Your task to perform on an android device: empty trash in google photos Image 0: 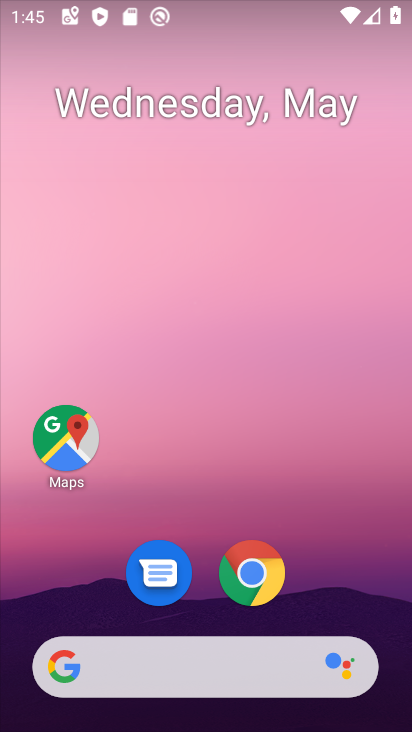
Step 0: drag from (308, 604) to (319, 2)
Your task to perform on an android device: empty trash in google photos Image 1: 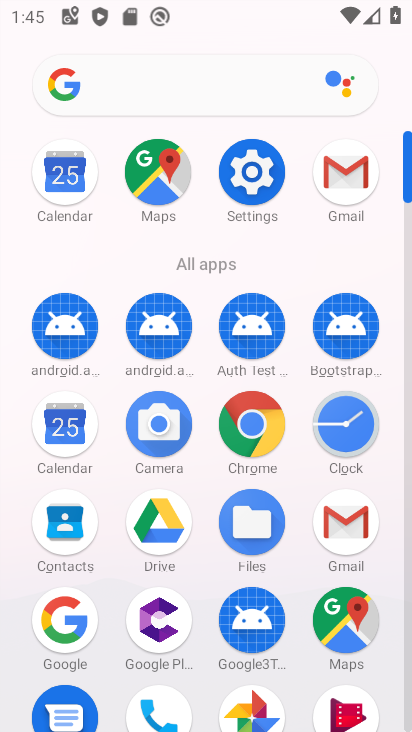
Step 1: drag from (207, 577) to (266, 202)
Your task to perform on an android device: empty trash in google photos Image 2: 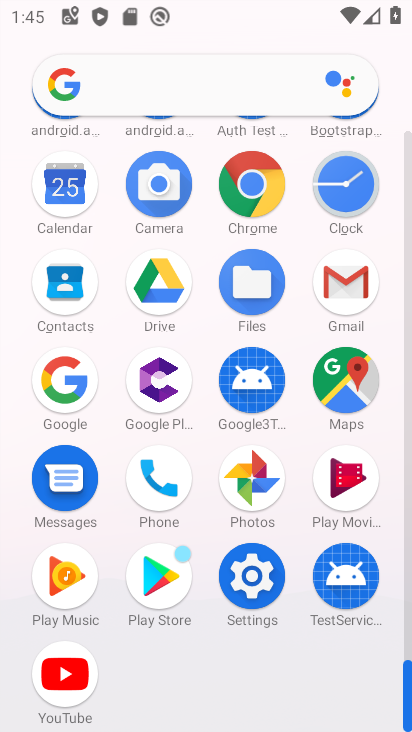
Step 2: click (252, 489)
Your task to perform on an android device: empty trash in google photos Image 3: 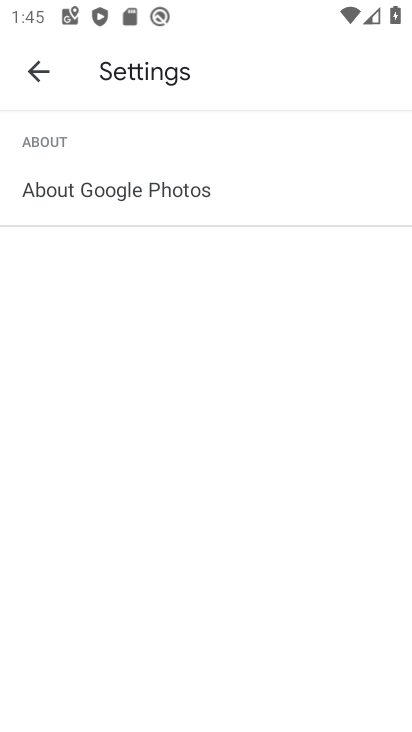
Step 3: click (28, 70)
Your task to perform on an android device: empty trash in google photos Image 4: 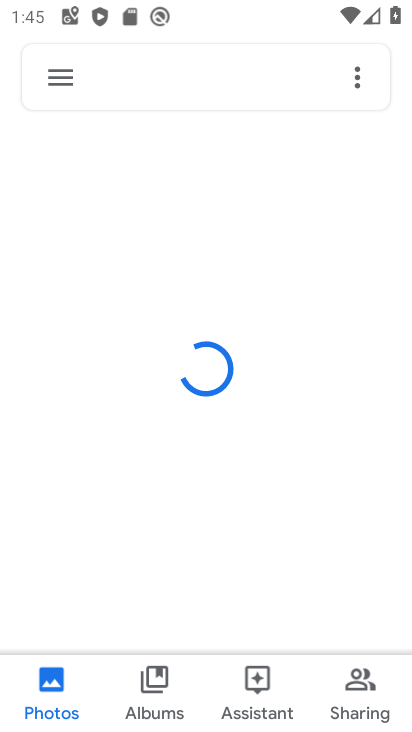
Step 4: click (64, 84)
Your task to perform on an android device: empty trash in google photos Image 5: 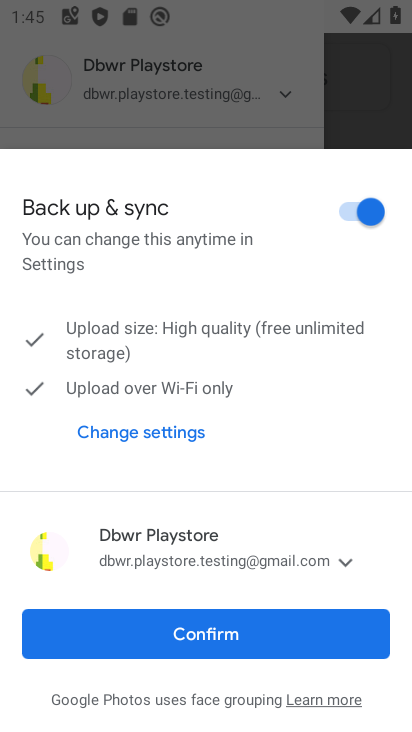
Step 5: click (228, 632)
Your task to perform on an android device: empty trash in google photos Image 6: 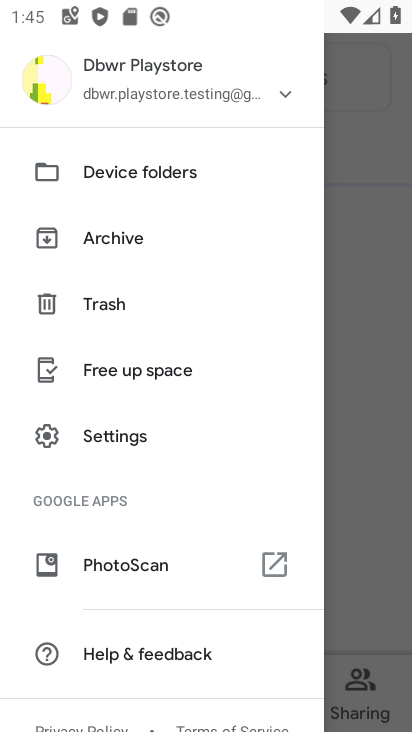
Step 6: click (115, 308)
Your task to perform on an android device: empty trash in google photos Image 7: 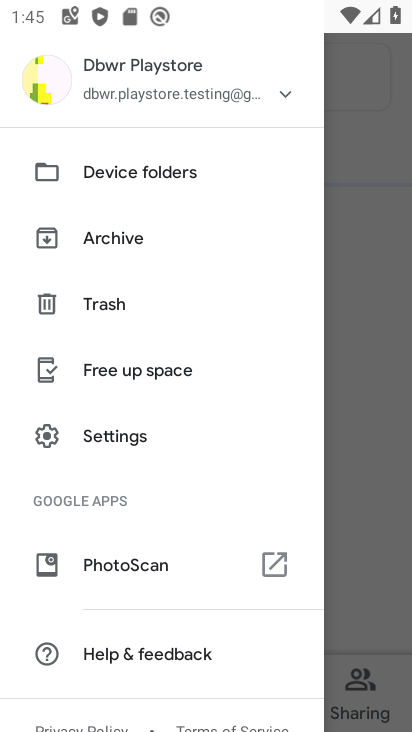
Step 7: click (158, 301)
Your task to perform on an android device: empty trash in google photos Image 8: 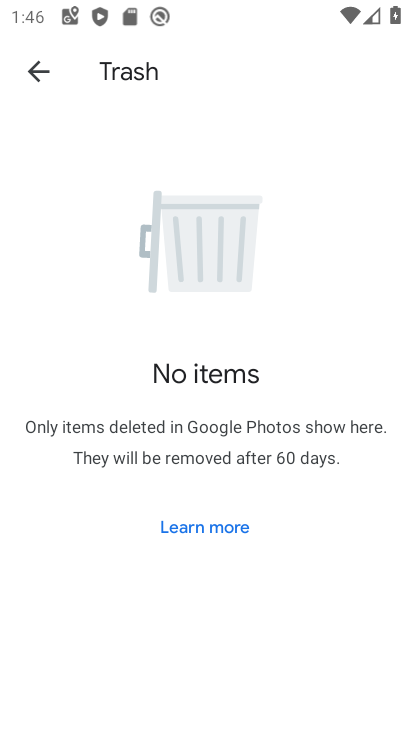
Step 8: task complete